Your task to perform on an android device: turn off javascript in the chrome app Image 0: 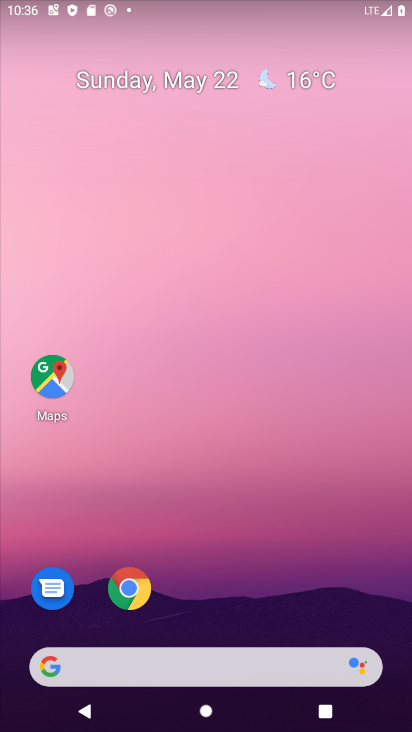
Step 0: click (126, 603)
Your task to perform on an android device: turn off javascript in the chrome app Image 1: 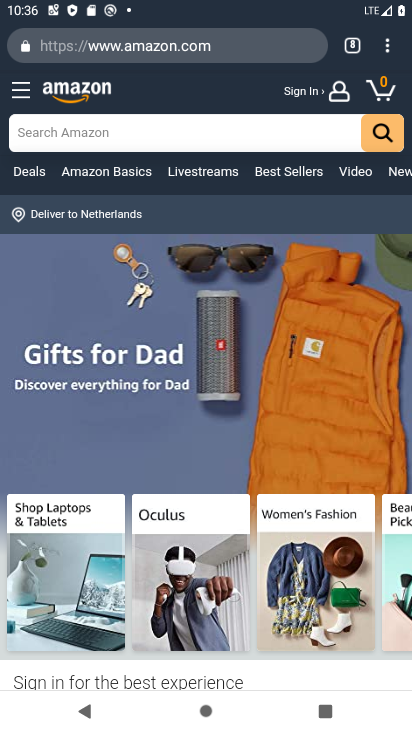
Step 1: click (382, 42)
Your task to perform on an android device: turn off javascript in the chrome app Image 2: 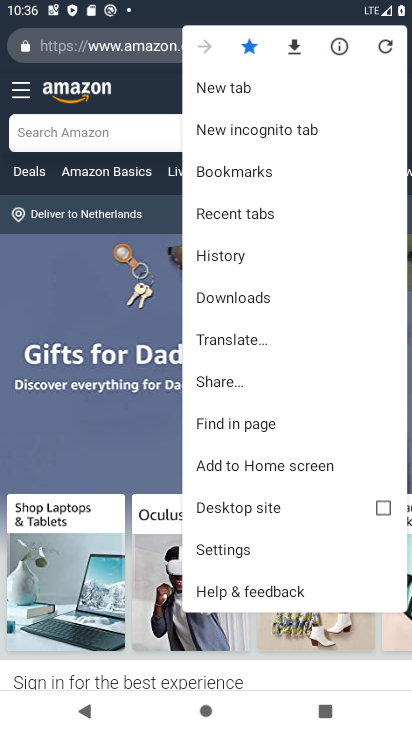
Step 2: click (256, 547)
Your task to perform on an android device: turn off javascript in the chrome app Image 3: 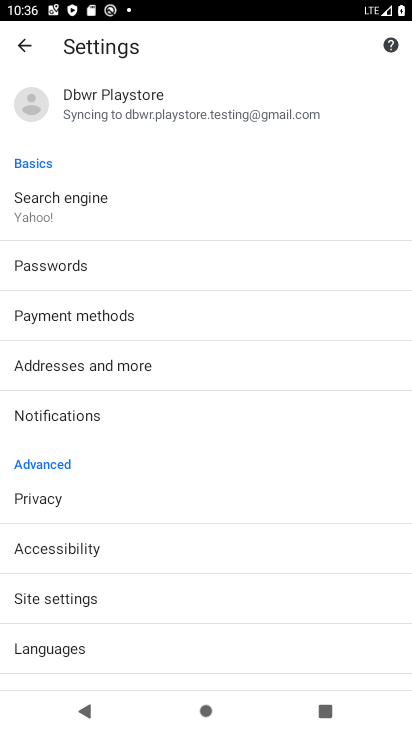
Step 3: click (142, 601)
Your task to perform on an android device: turn off javascript in the chrome app Image 4: 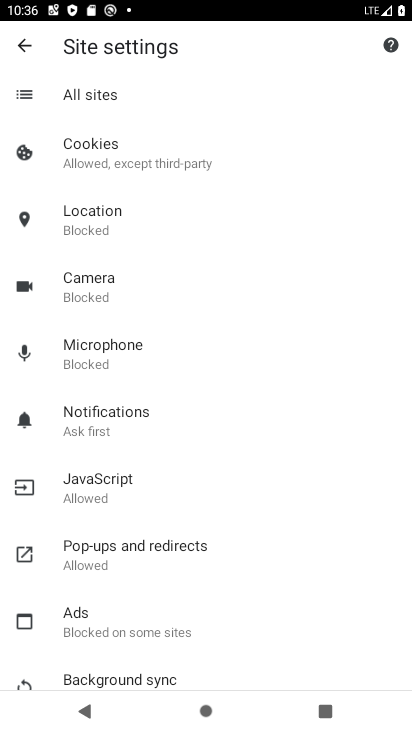
Step 4: click (136, 478)
Your task to perform on an android device: turn off javascript in the chrome app Image 5: 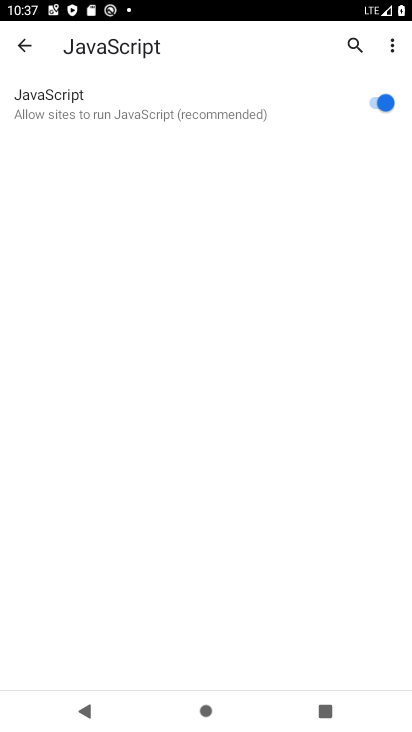
Step 5: click (366, 102)
Your task to perform on an android device: turn off javascript in the chrome app Image 6: 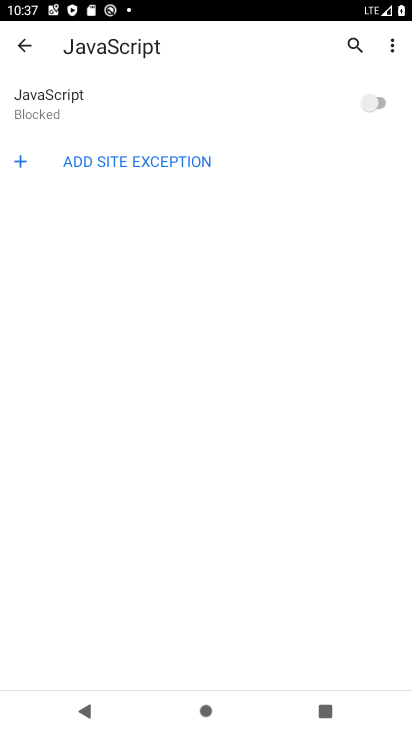
Step 6: task complete